Your task to perform on an android device: open app "TextNow: Call + Text Unlimited" (install if not already installed) and go to login screen Image 0: 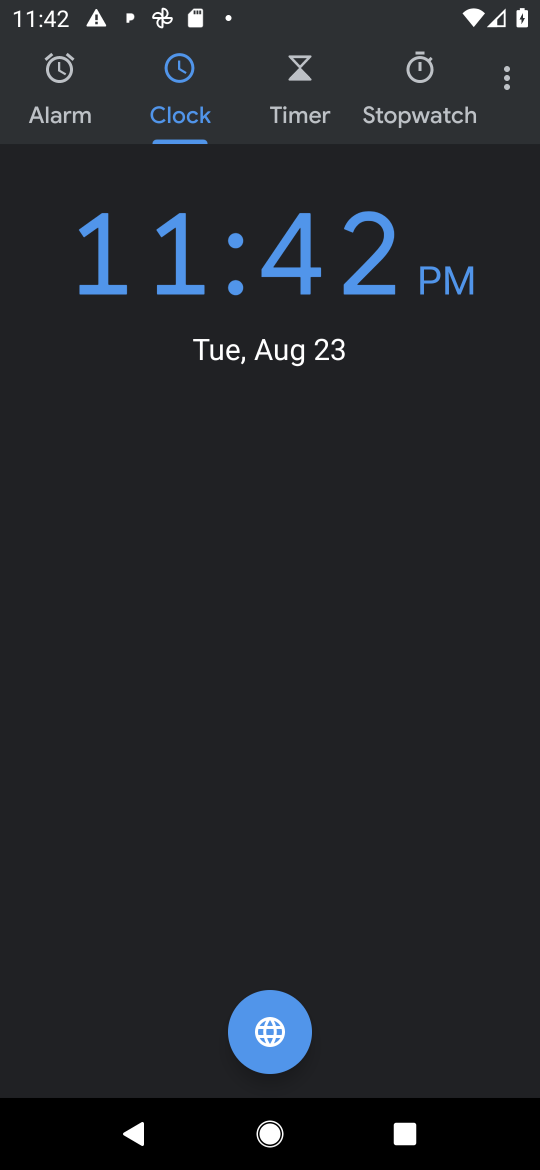
Step 0: press home button
Your task to perform on an android device: open app "TextNow: Call + Text Unlimited" (install if not already installed) and go to login screen Image 1: 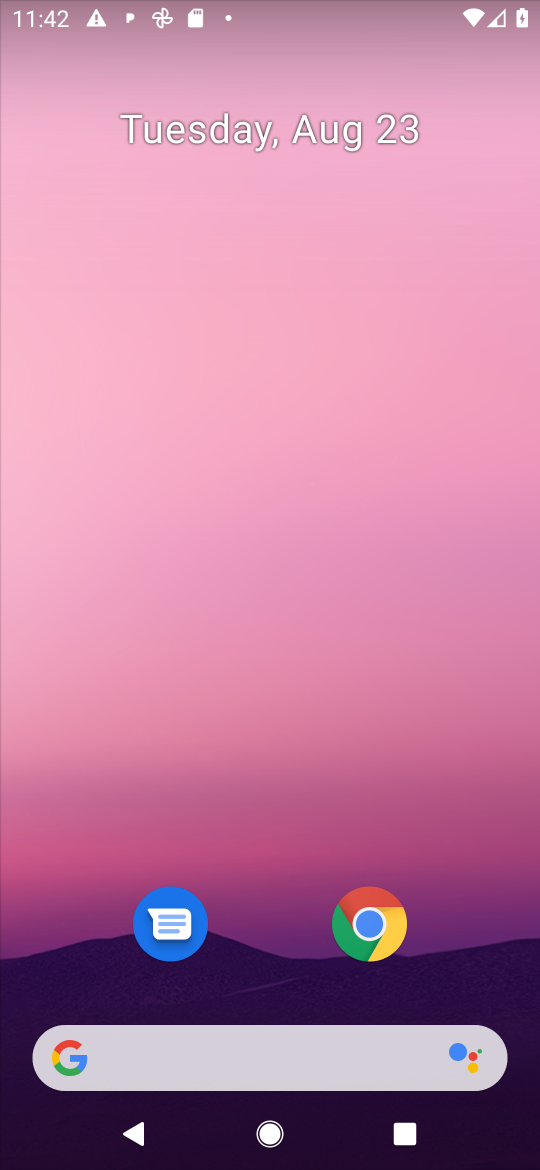
Step 1: drag from (491, 950) to (515, 114)
Your task to perform on an android device: open app "TextNow: Call + Text Unlimited" (install if not already installed) and go to login screen Image 2: 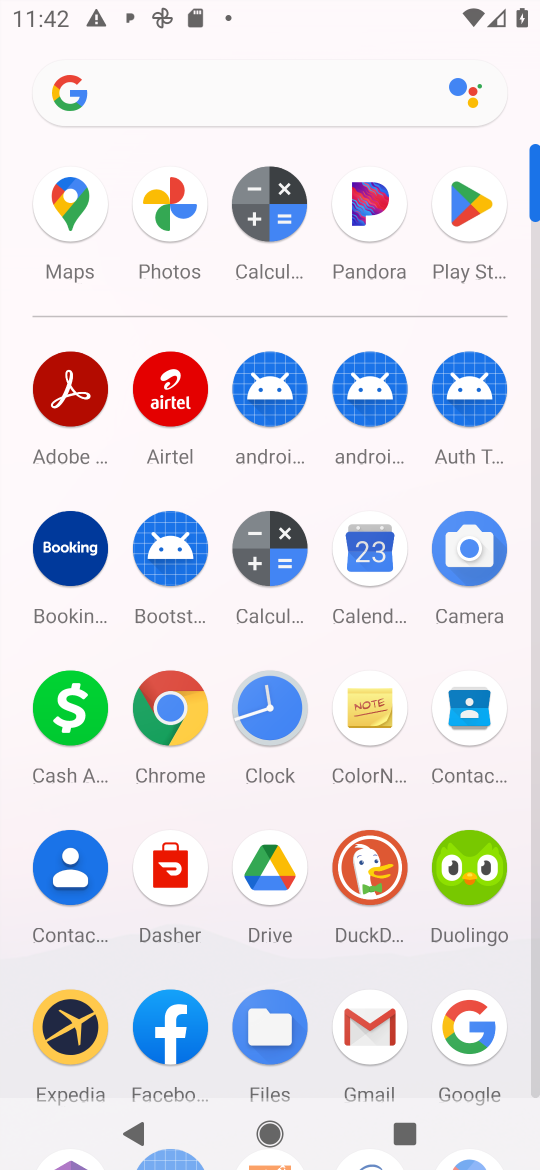
Step 2: click (471, 207)
Your task to perform on an android device: open app "TextNow: Call + Text Unlimited" (install if not already installed) and go to login screen Image 3: 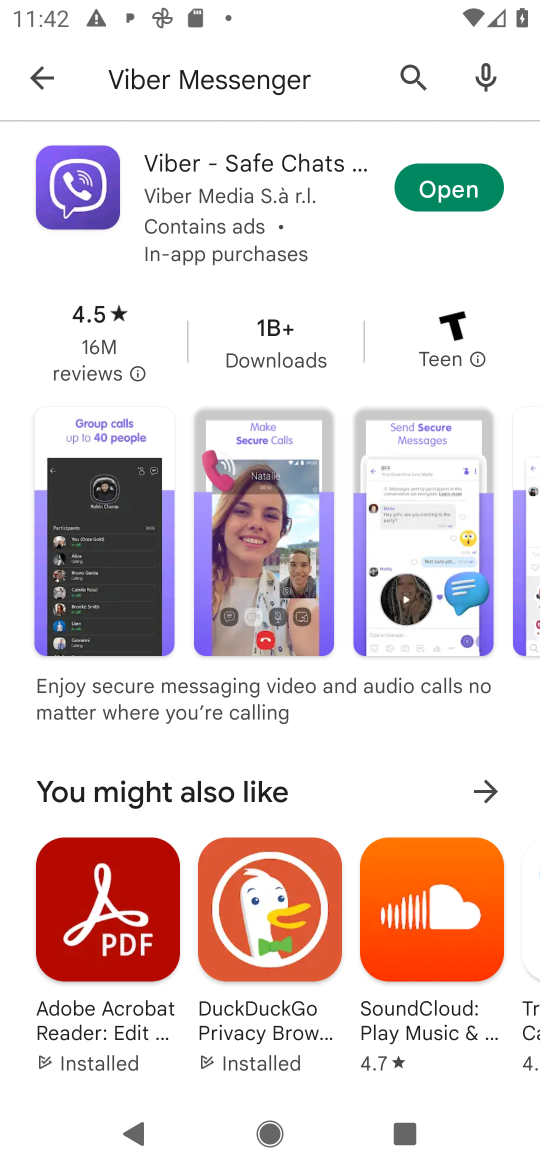
Step 3: press back button
Your task to perform on an android device: open app "TextNow: Call + Text Unlimited" (install if not already installed) and go to login screen Image 4: 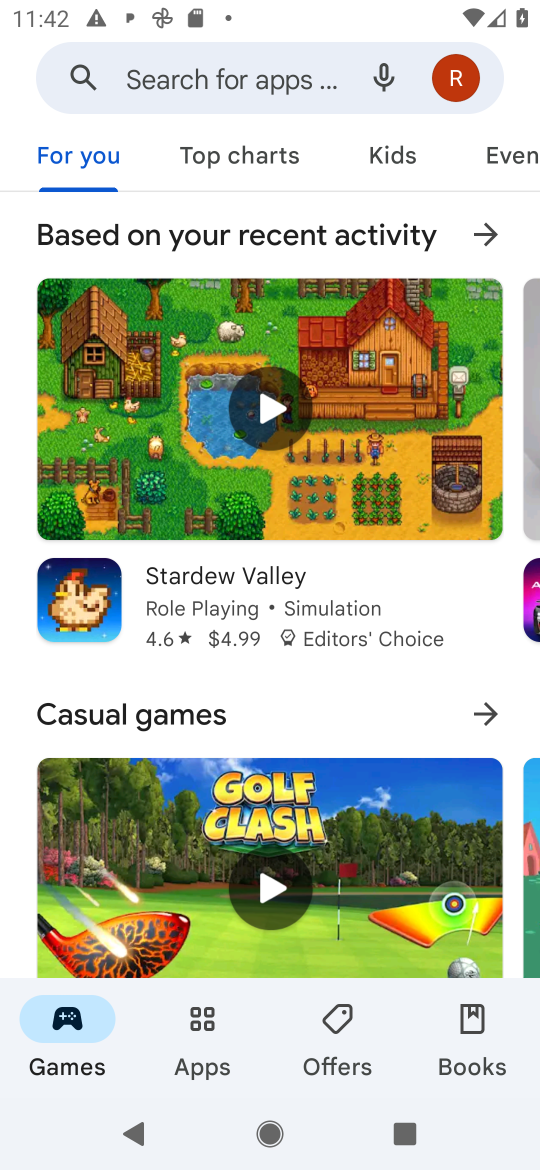
Step 4: click (231, 74)
Your task to perform on an android device: open app "TextNow: Call + Text Unlimited" (install if not already installed) and go to login screen Image 5: 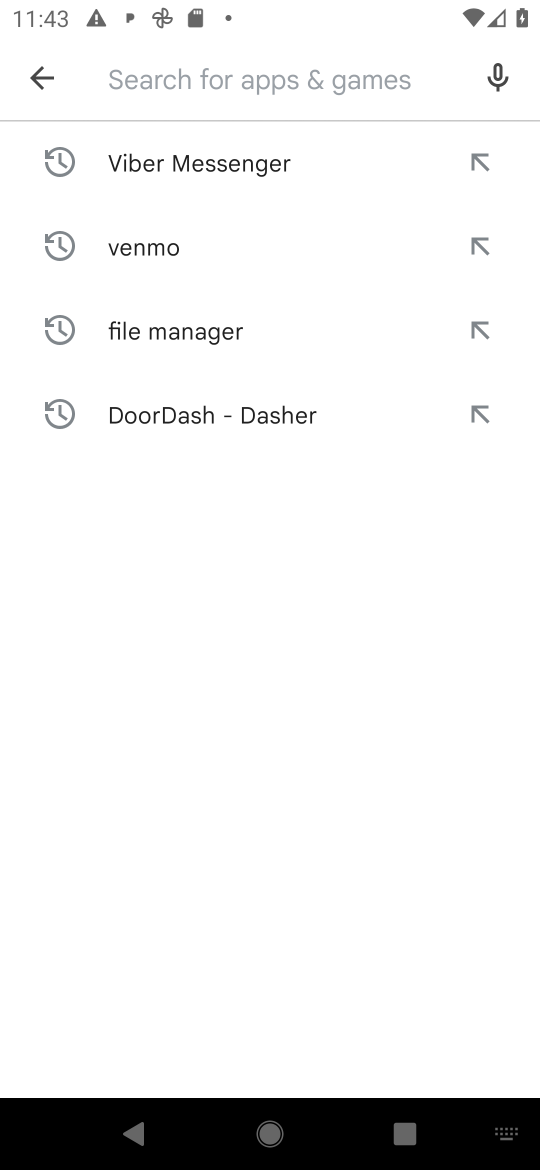
Step 5: press enter
Your task to perform on an android device: open app "TextNow: Call + Text Unlimited" (install if not already installed) and go to login screen Image 6: 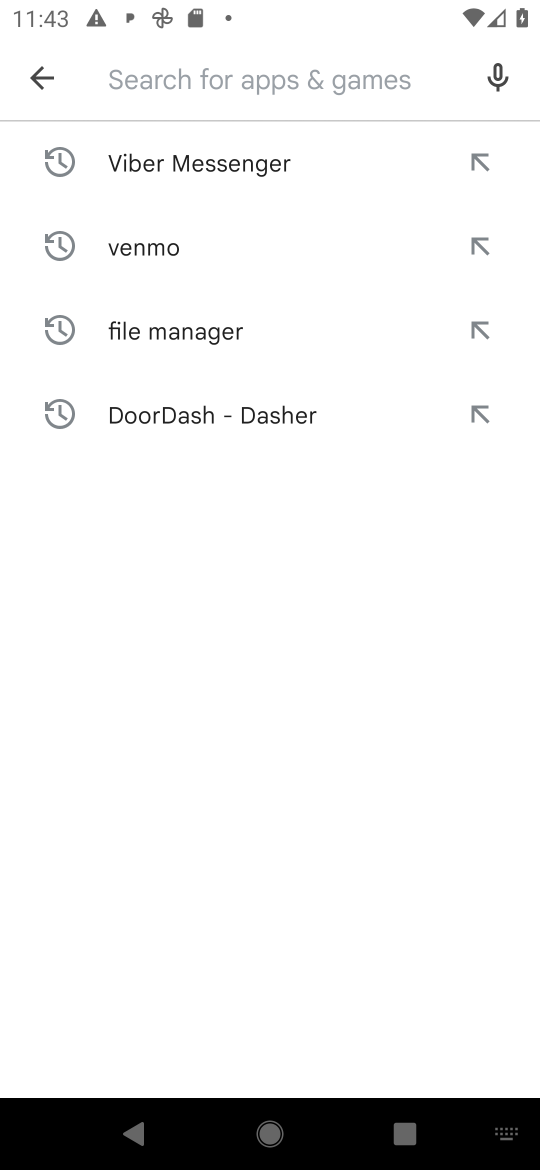
Step 6: type "TextNow: Call + Text Unlimited"
Your task to perform on an android device: open app "TextNow: Call + Text Unlimited" (install if not already installed) and go to login screen Image 7: 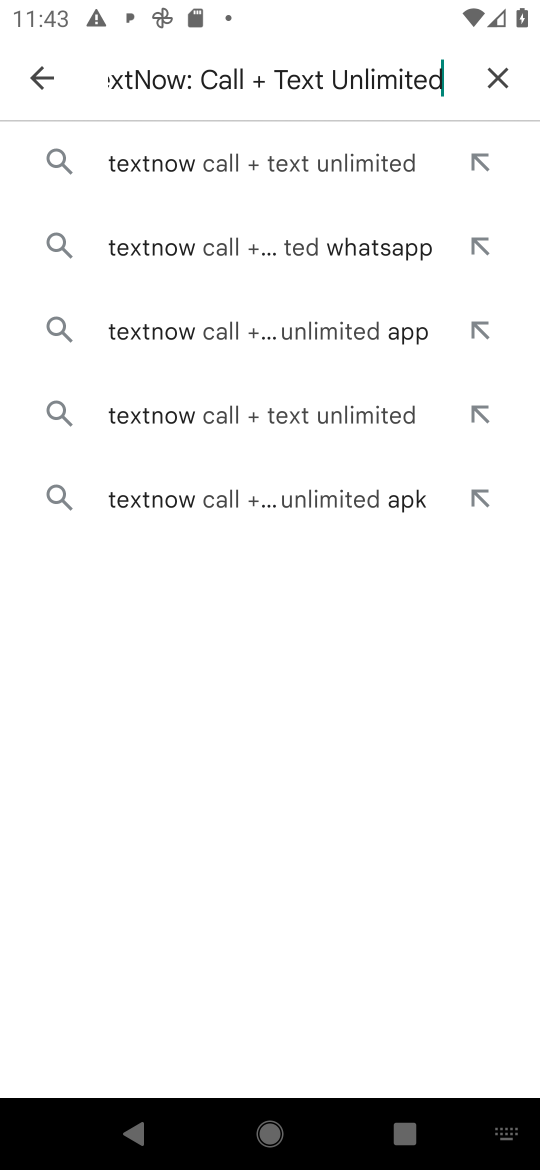
Step 7: click (352, 156)
Your task to perform on an android device: open app "TextNow: Call + Text Unlimited" (install if not already installed) and go to login screen Image 8: 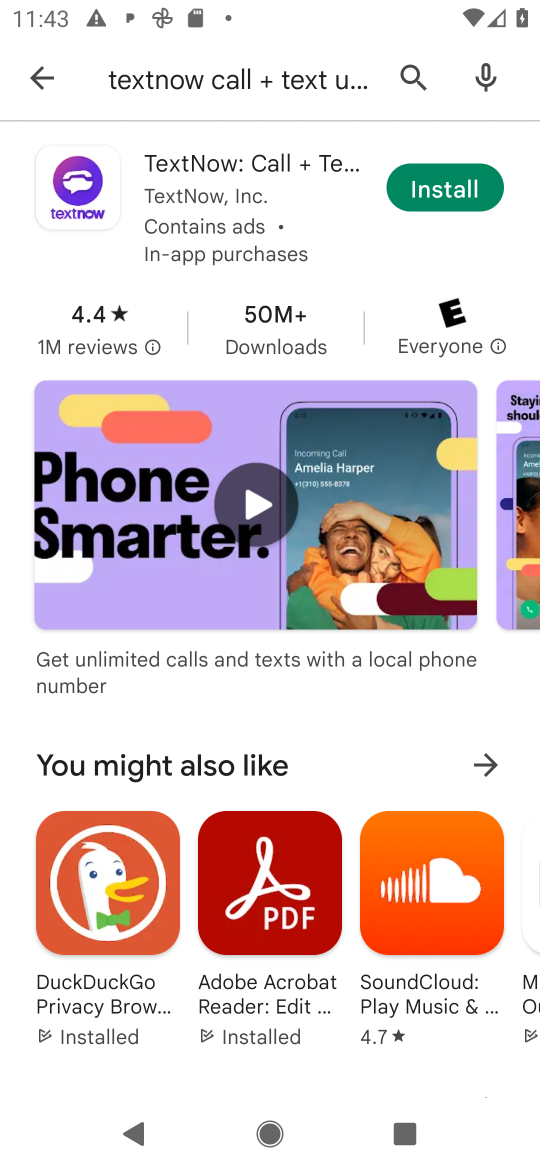
Step 8: click (447, 183)
Your task to perform on an android device: open app "TextNow: Call + Text Unlimited" (install if not already installed) and go to login screen Image 9: 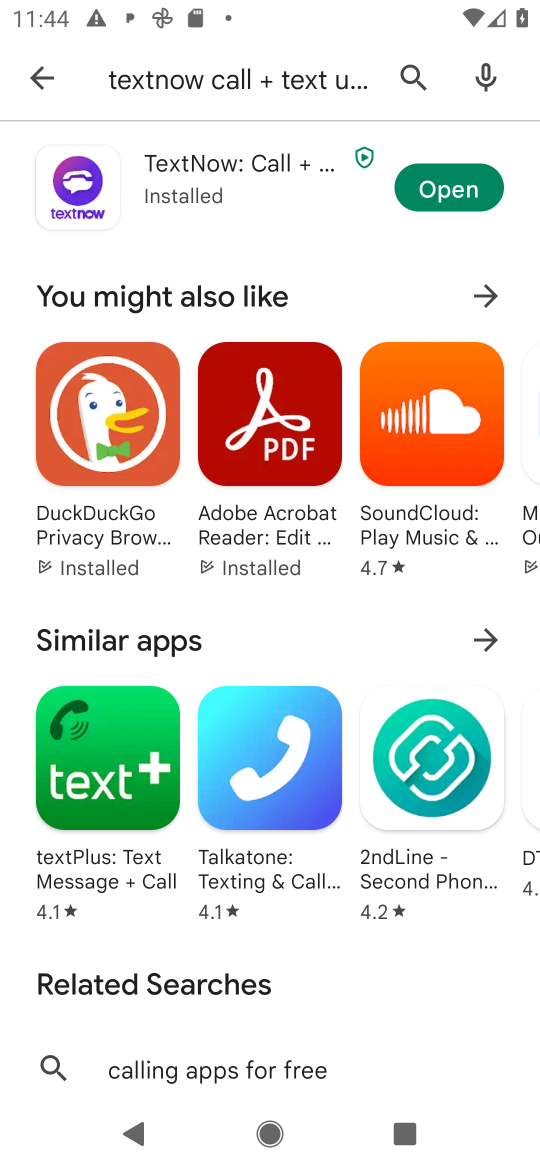
Step 9: click (442, 187)
Your task to perform on an android device: open app "TextNow: Call + Text Unlimited" (install if not already installed) and go to login screen Image 10: 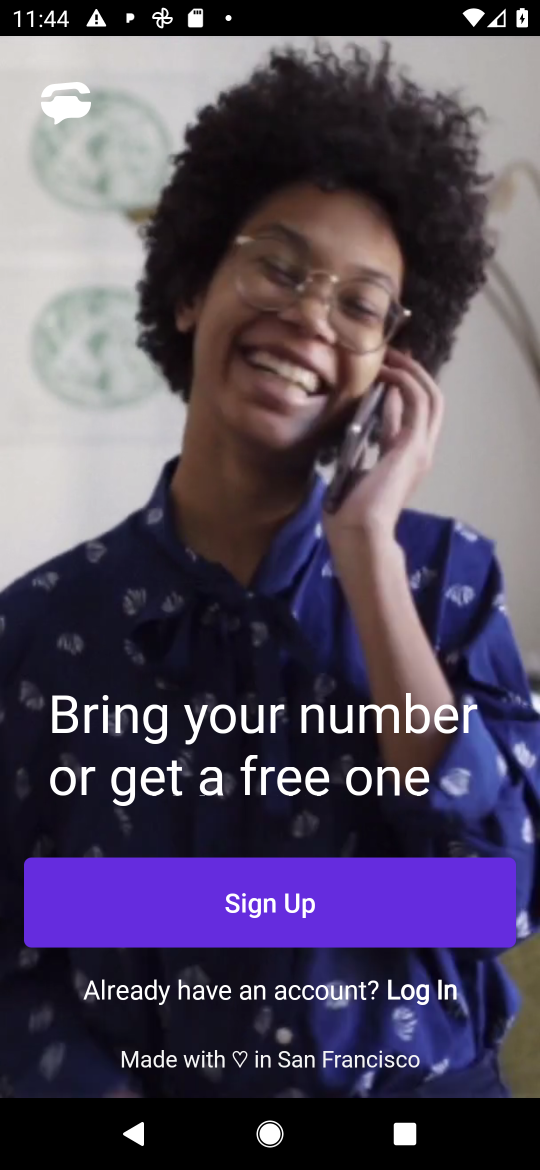
Step 10: click (416, 995)
Your task to perform on an android device: open app "TextNow: Call + Text Unlimited" (install if not already installed) and go to login screen Image 11: 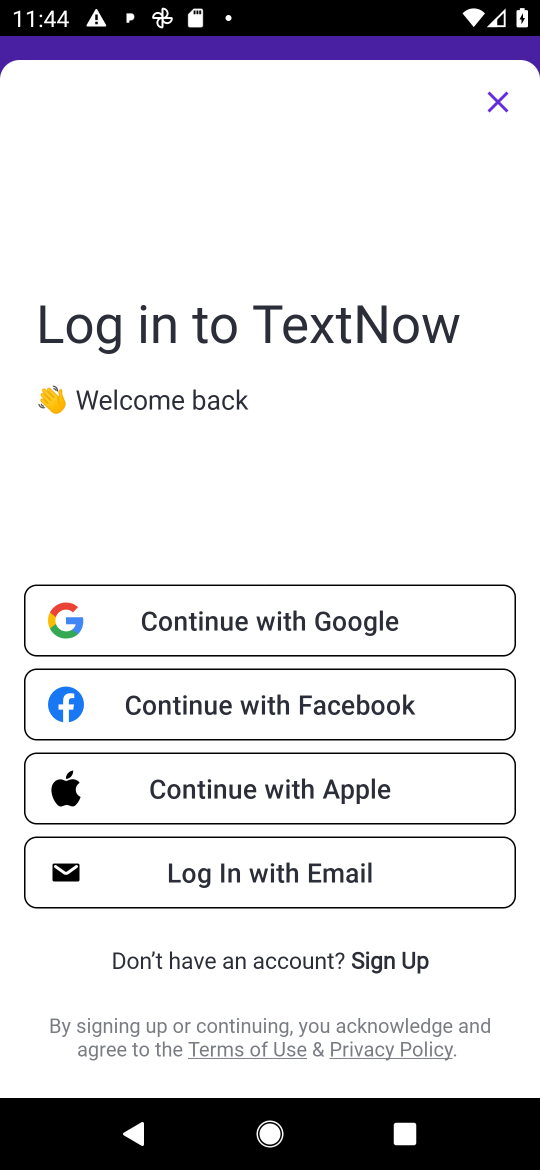
Step 11: task complete